Your task to perform on an android device: What's the weather going to be this weekend? Image 0: 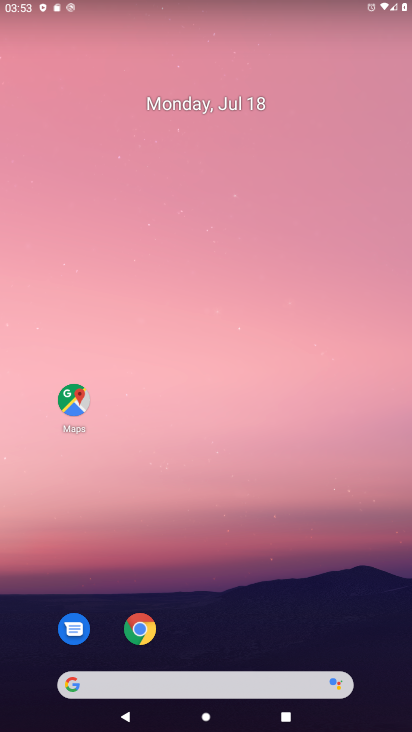
Step 0: drag from (2, 266) to (398, 291)
Your task to perform on an android device: What's the weather going to be this weekend? Image 1: 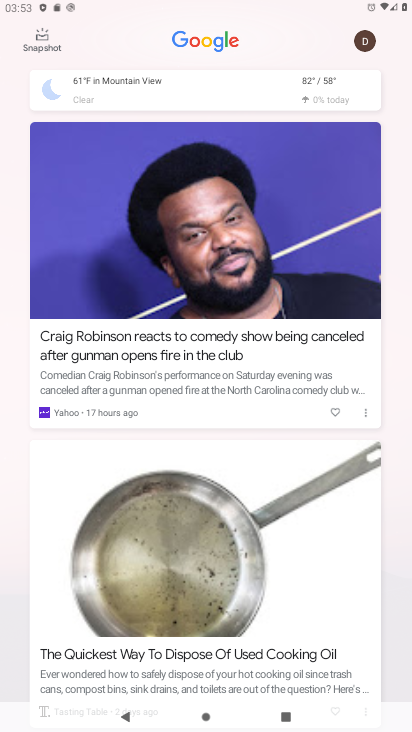
Step 1: click (335, 84)
Your task to perform on an android device: What's the weather going to be this weekend? Image 2: 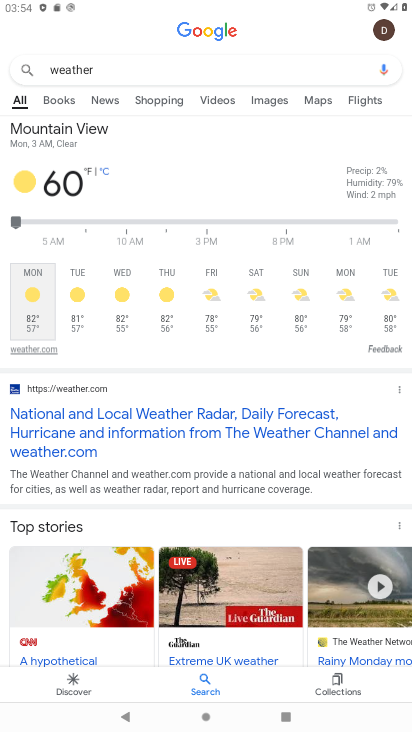
Step 2: task complete